Your task to perform on an android device: Go to CNN.com Image 0: 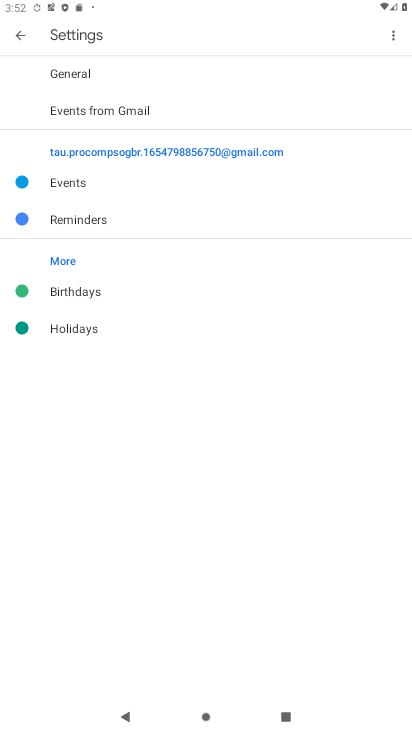
Step 0: press home button
Your task to perform on an android device: Go to CNN.com Image 1: 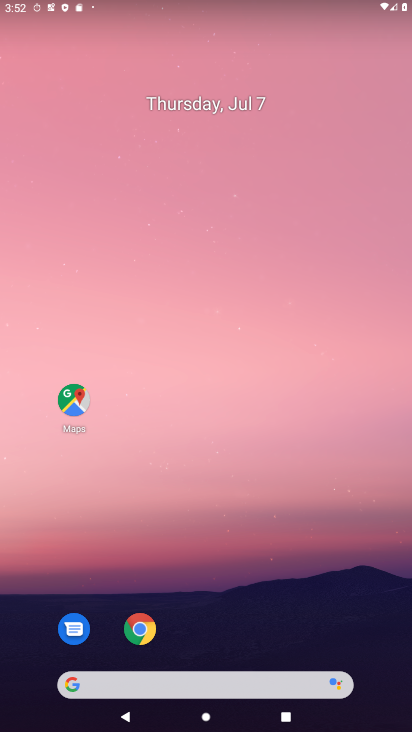
Step 1: drag from (224, 372) to (227, 22)
Your task to perform on an android device: Go to CNN.com Image 2: 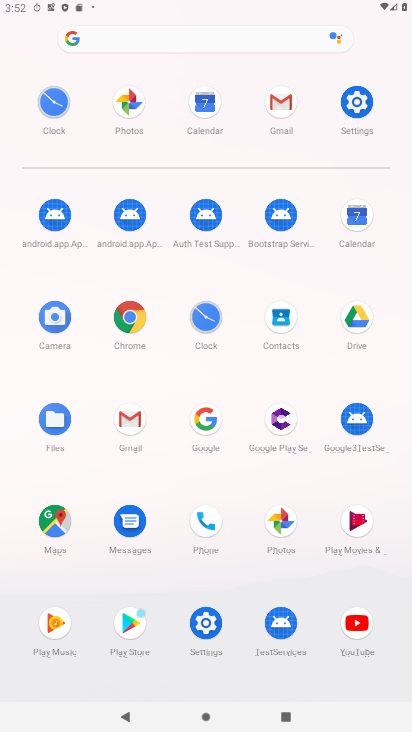
Step 2: click (116, 340)
Your task to perform on an android device: Go to CNN.com Image 3: 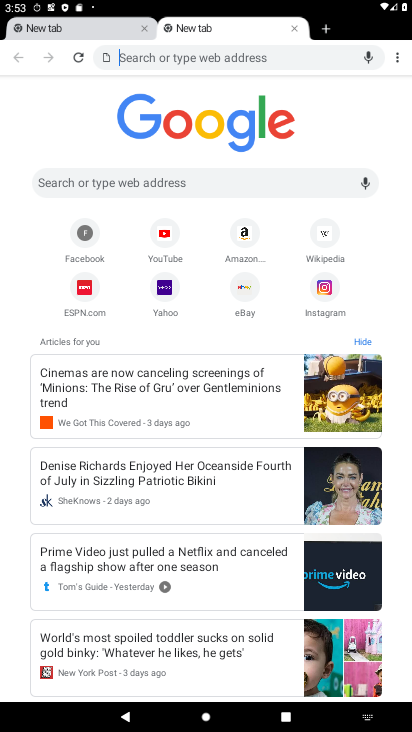
Step 3: click (209, 169)
Your task to perform on an android device: Go to CNN.com Image 4: 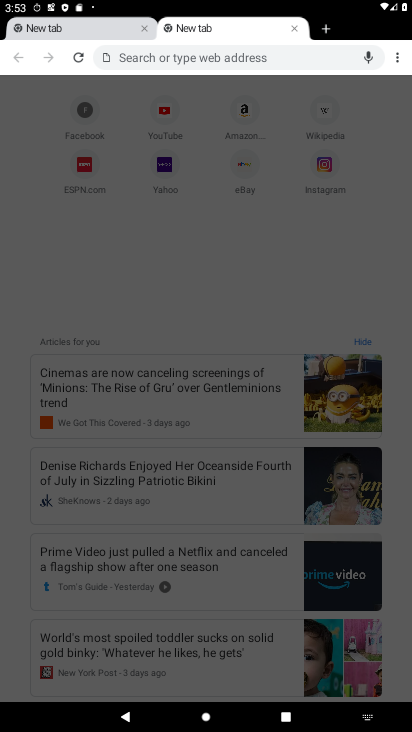
Step 4: type "www.cnn.com"
Your task to perform on an android device: Go to CNN.com Image 5: 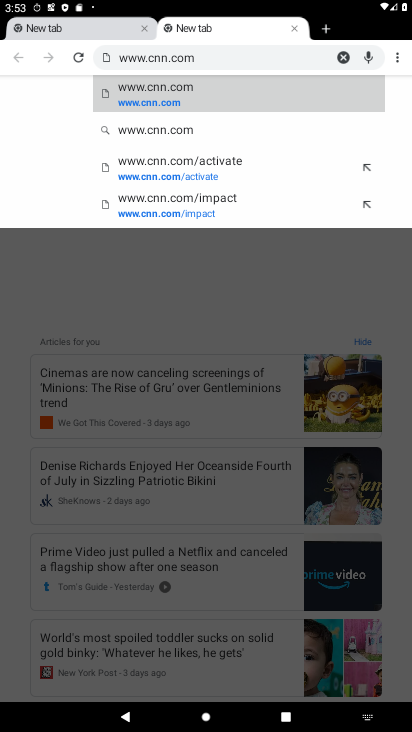
Step 5: click (156, 100)
Your task to perform on an android device: Go to CNN.com Image 6: 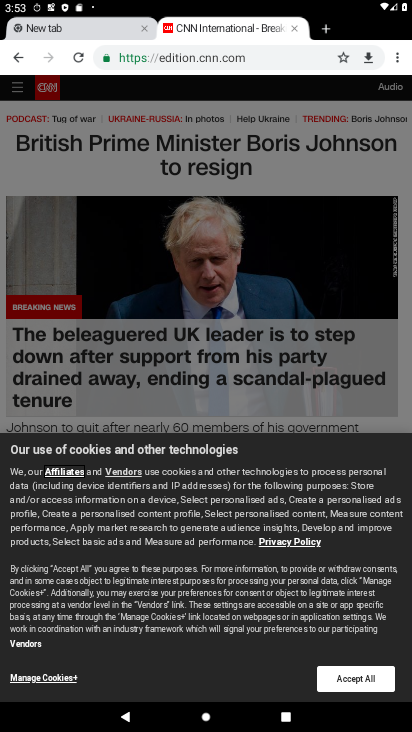
Step 6: task complete